Your task to perform on an android device: toggle show notifications on the lock screen Image 0: 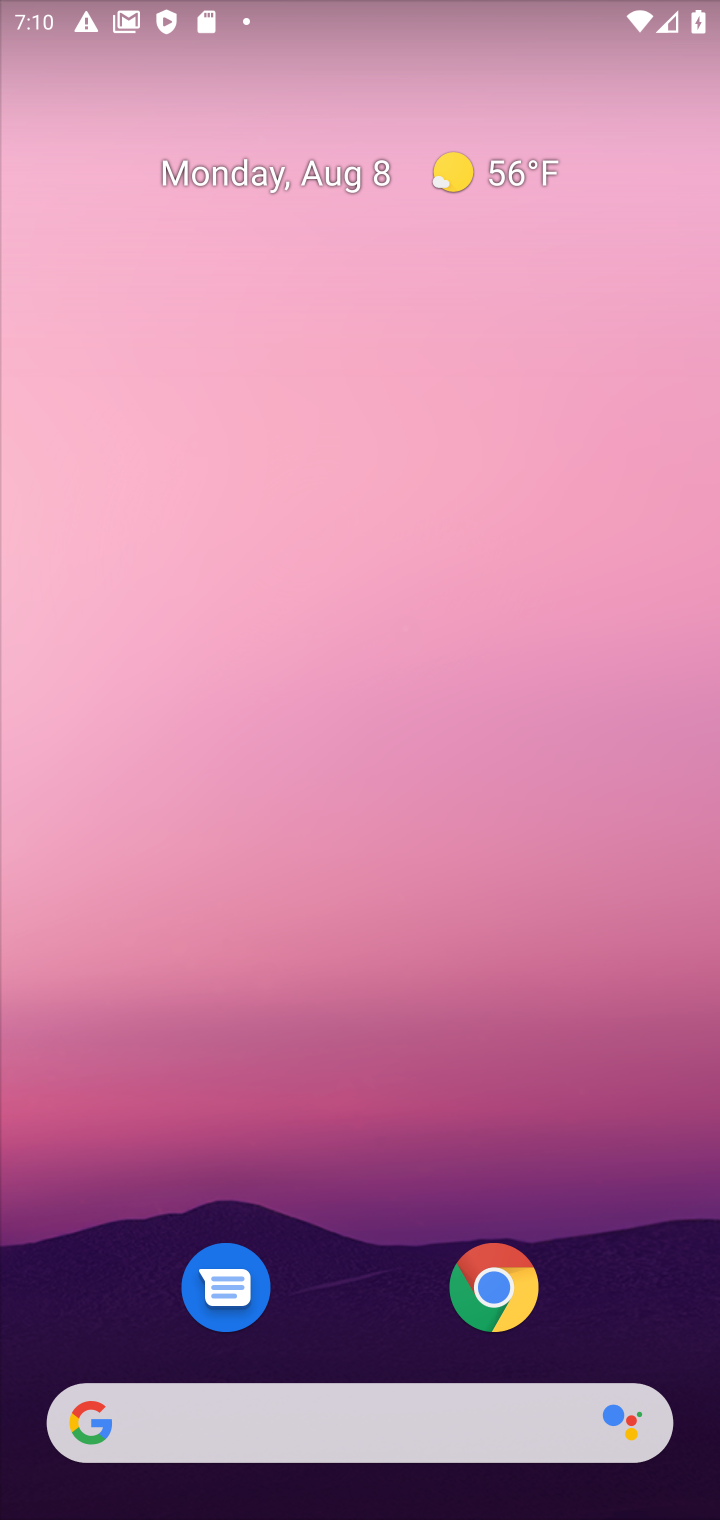
Step 0: drag from (316, 1115) to (567, 319)
Your task to perform on an android device: toggle show notifications on the lock screen Image 1: 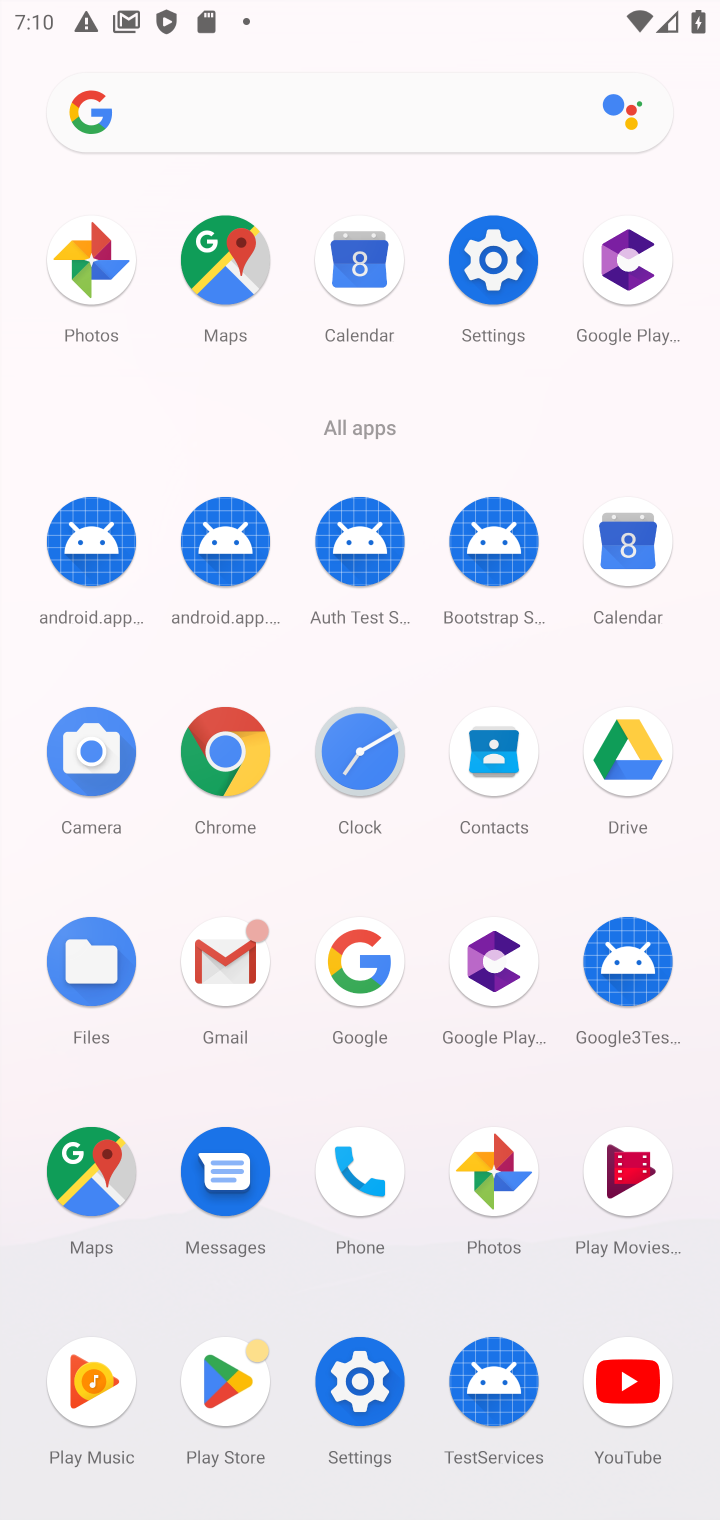
Step 1: click (495, 293)
Your task to perform on an android device: toggle show notifications on the lock screen Image 2: 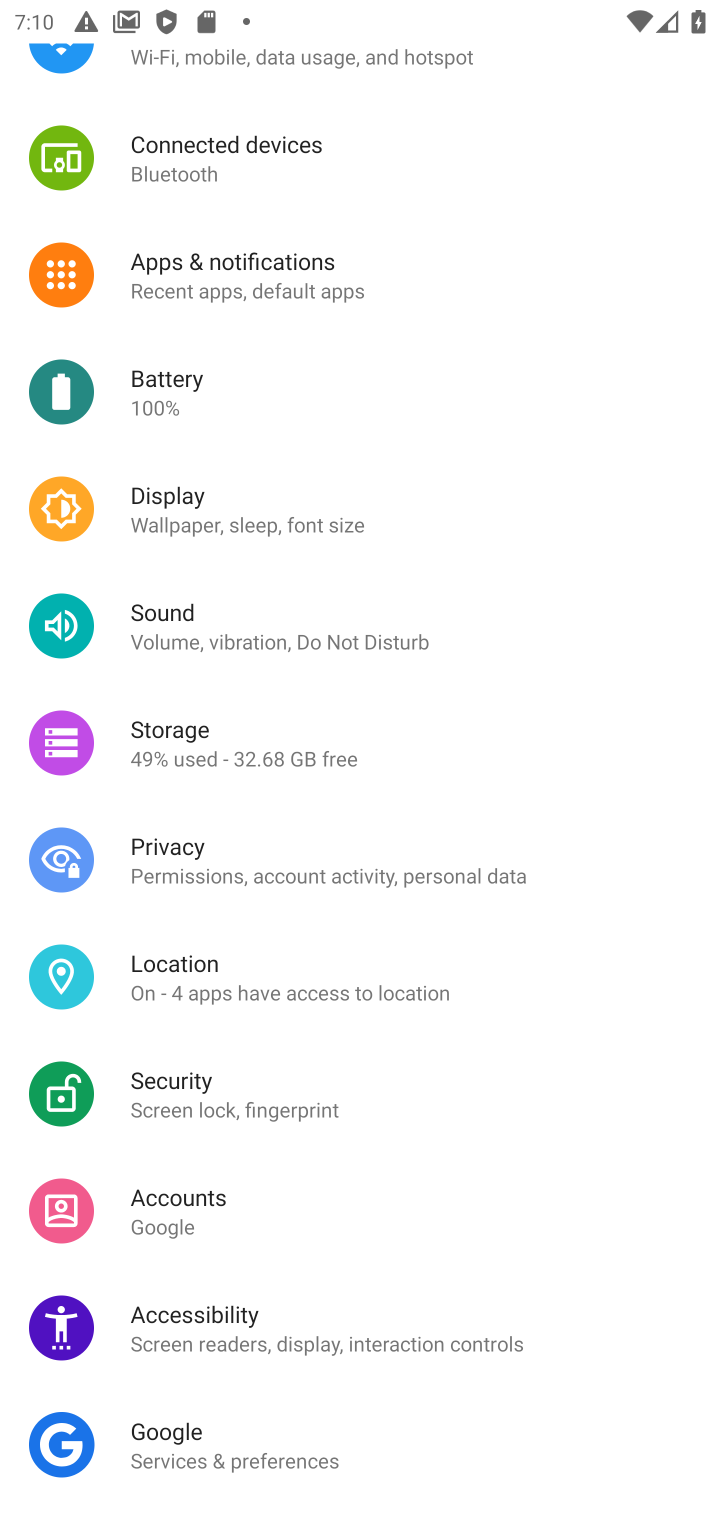
Step 2: click (327, 272)
Your task to perform on an android device: toggle show notifications on the lock screen Image 3: 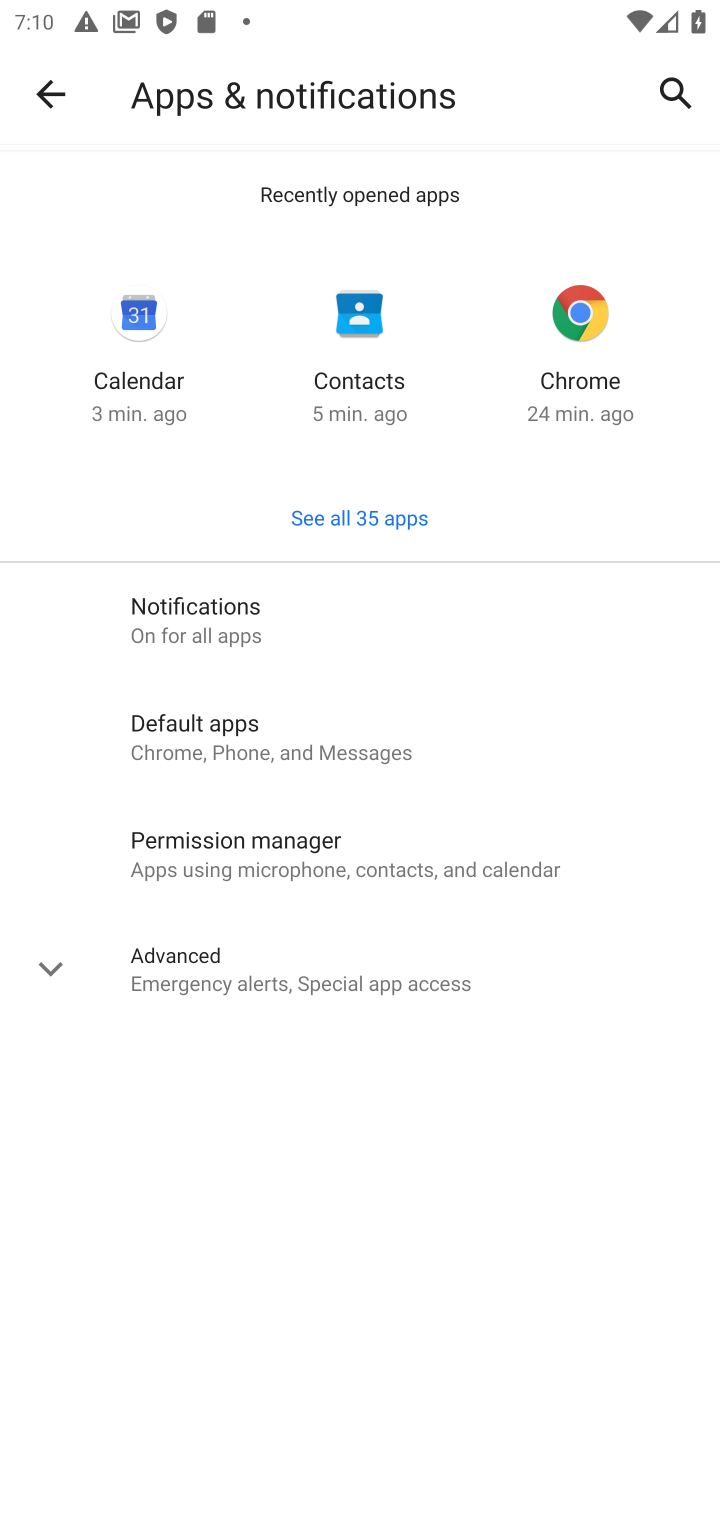
Step 3: click (52, 92)
Your task to perform on an android device: toggle show notifications on the lock screen Image 4: 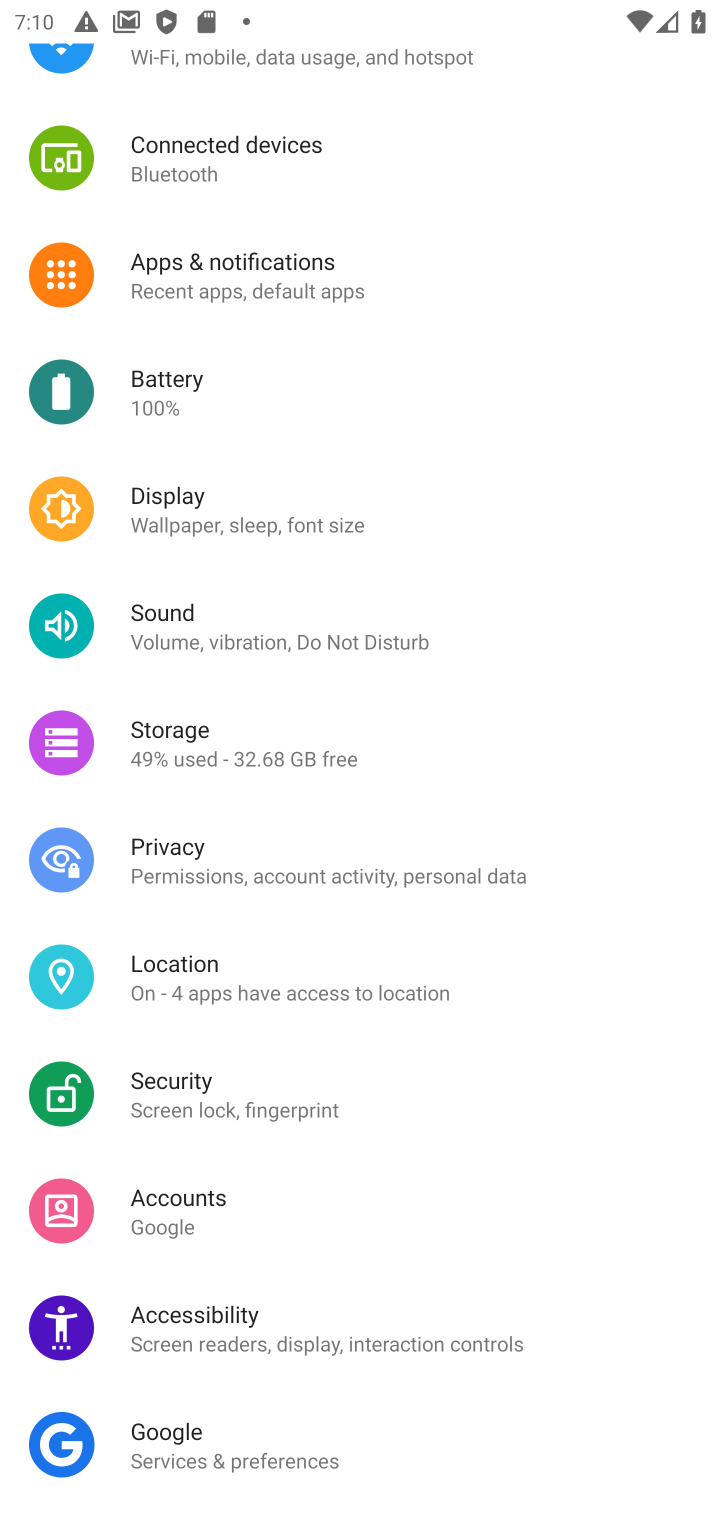
Step 4: task complete